Your task to perform on an android device: Open Google Maps and go to "Timeline" Image 0: 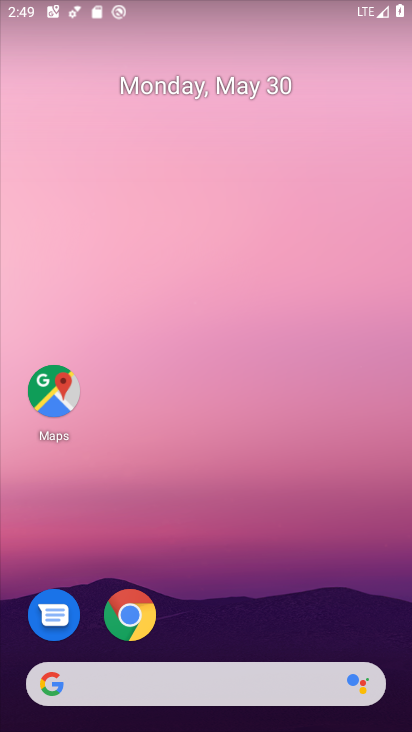
Step 0: click (57, 378)
Your task to perform on an android device: Open Google Maps and go to "Timeline" Image 1: 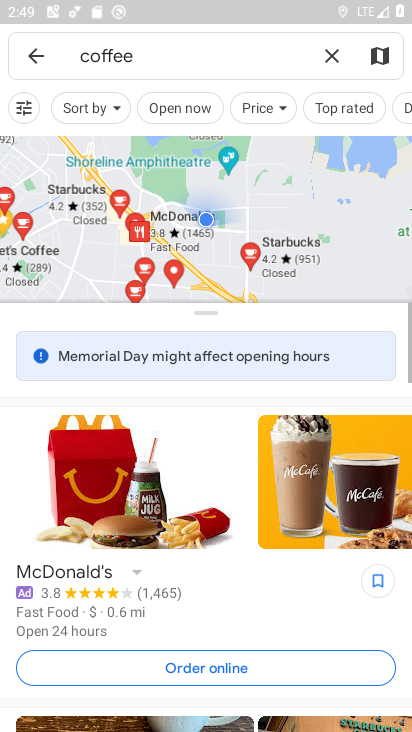
Step 1: click (27, 51)
Your task to perform on an android device: Open Google Maps and go to "Timeline" Image 2: 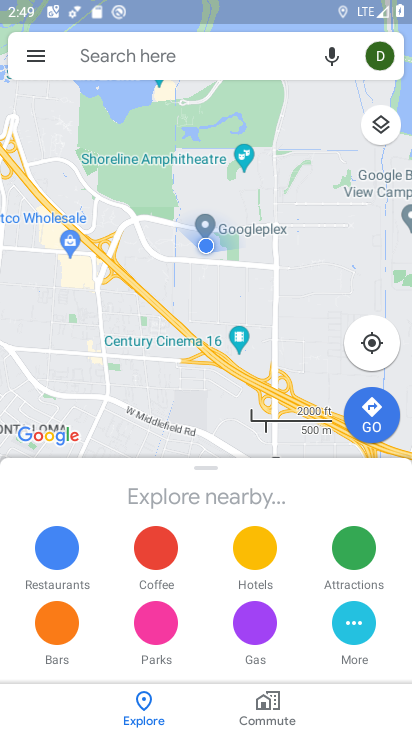
Step 2: click (29, 51)
Your task to perform on an android device: Open Google Maps and go to "Timeline" Image 3: 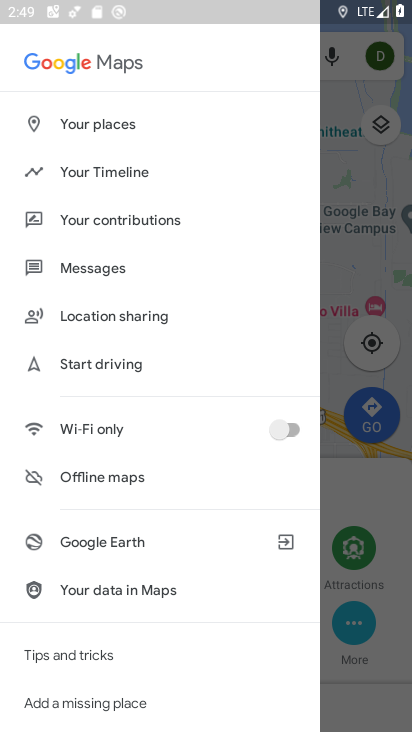
Step 3: click (116, 168)
Your task to perform on an android device: Open Google Maps and go to "Timeline" Image 4: 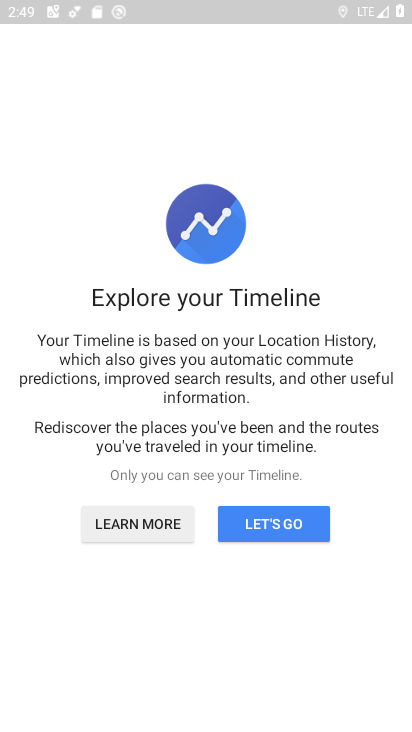
Step 4: click (287, 524)
Your task to perform on an android device: Open Google Maps and go to "Timeline" Image 5: 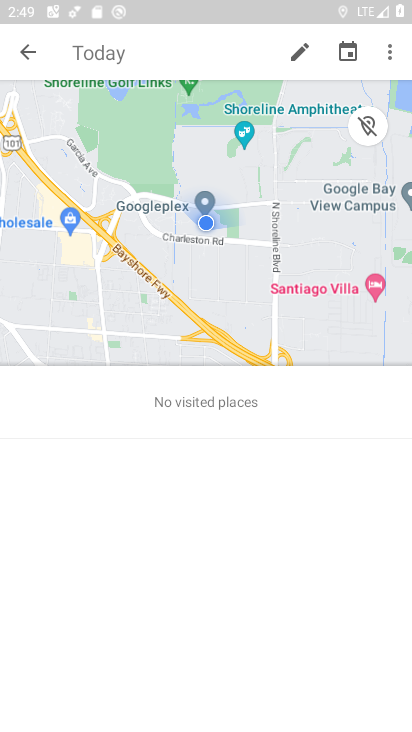
Step 5: task complete